Your task to perform on an android device: toggle translation in the chrome app Image 0: 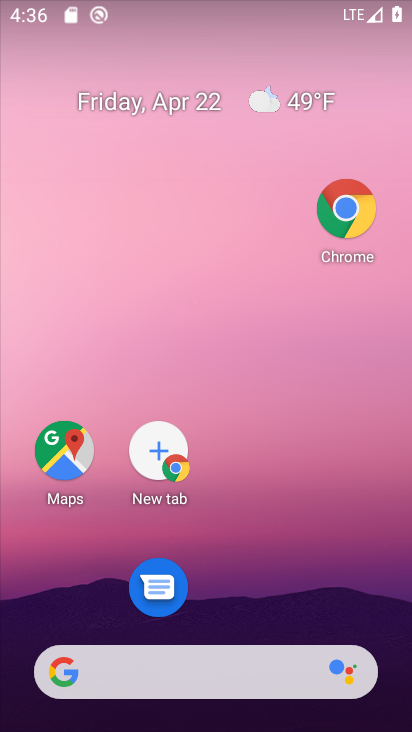
Step 0: click (343, 208)
Your task to perform on an android device: toggle translation in the chrome app Image 1: 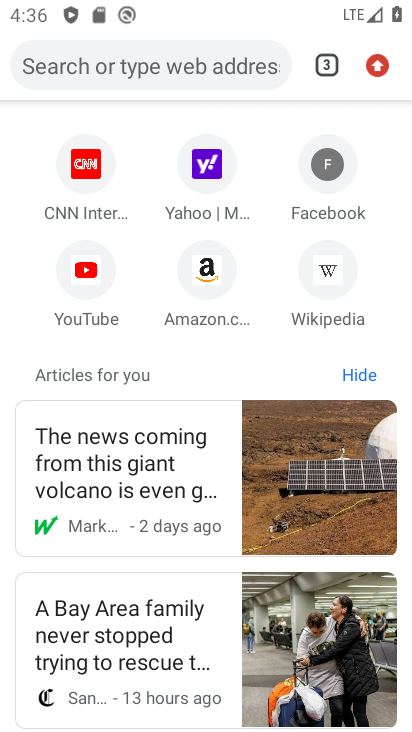
Step 1: click (386, 72)
Your task to perform on an android device: toggle translation in the chrome app Image 2: 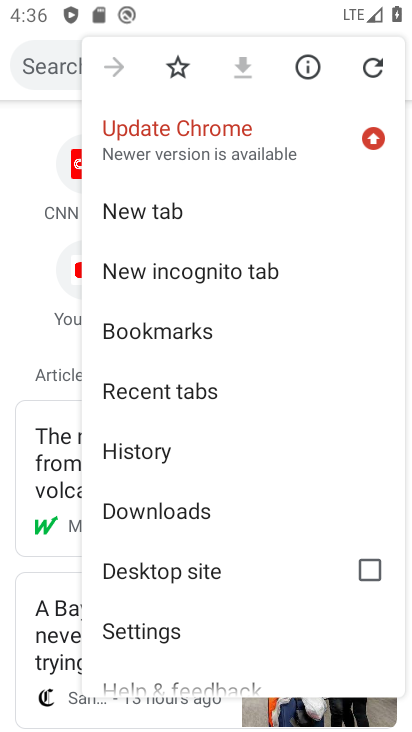
Step 2: click (137, 618)
Your task to perform on an android device: toggle translation in the chrome app Image 3: 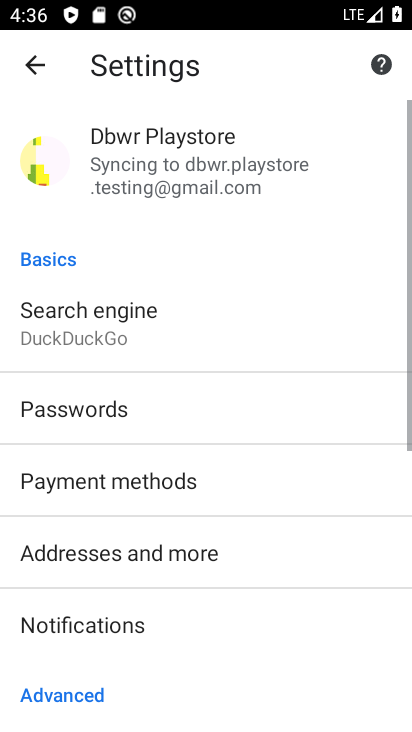
Step 3: drag from (137, 618) to (183, 229)
Your task to perform on an android device: toggle translation in the chrome app Image 4: 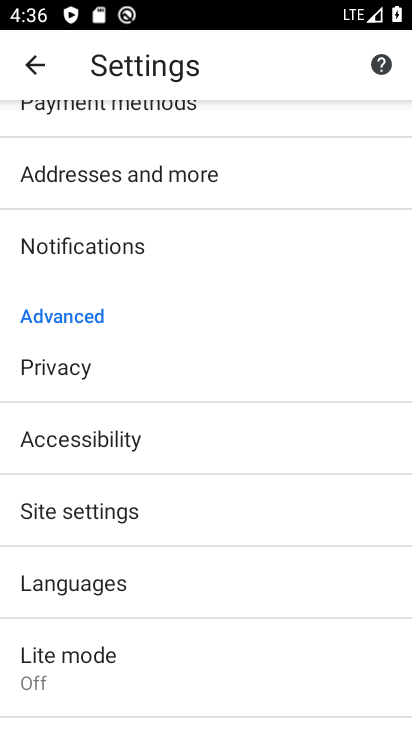
Step 4: click (172, 589)
Your task to perform on an android device: toggle translation in the chrome app Image 5: 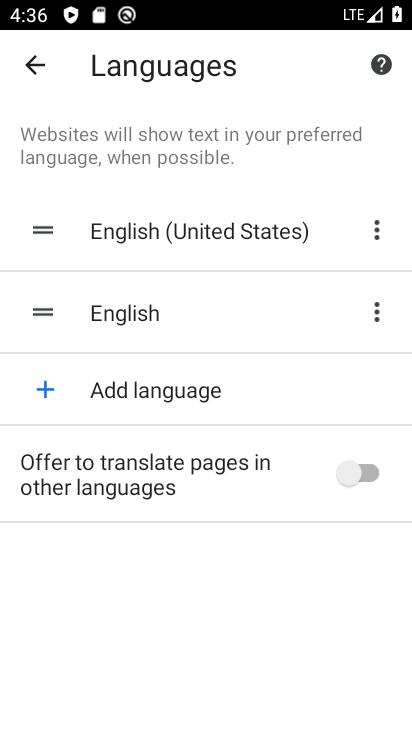
Step 5: click (368, 472)
Your task to perform on an android device: toggle translation in the chrome app Image 6: 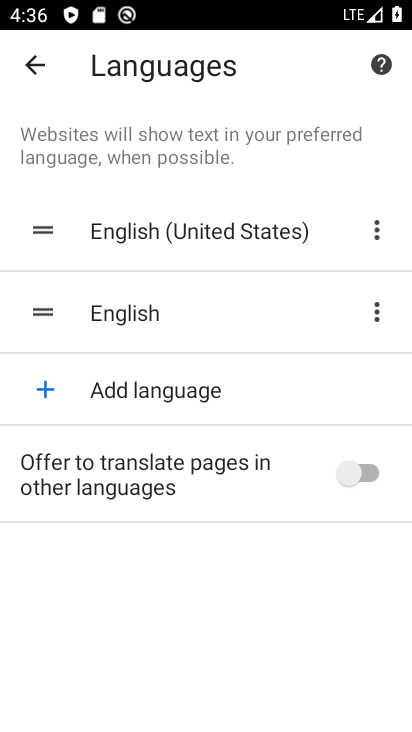
Step 6: click (368, 472)
Your task to perform on an android device: toggle translation in the chrome app Image 7: 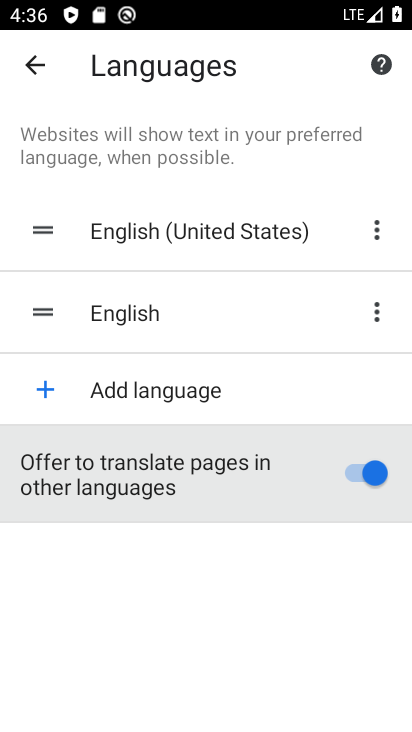
Step 7: click (368, 472)
Your task to perform on an android device: toggle translation in the chrome app Image 8: 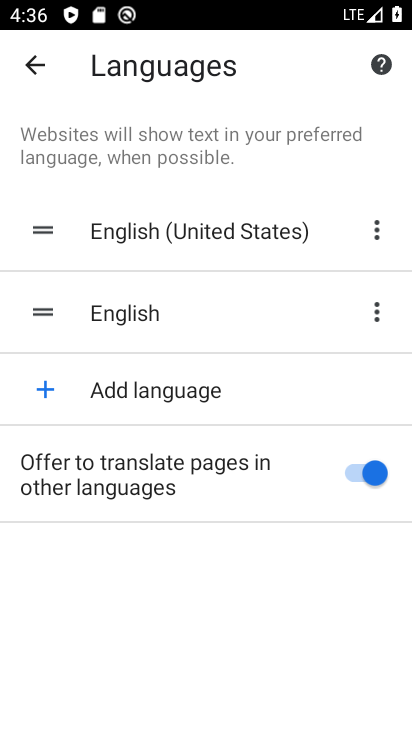
Step 8: task complete